Your task to perform on an android device: Go to Google maps Image 0: 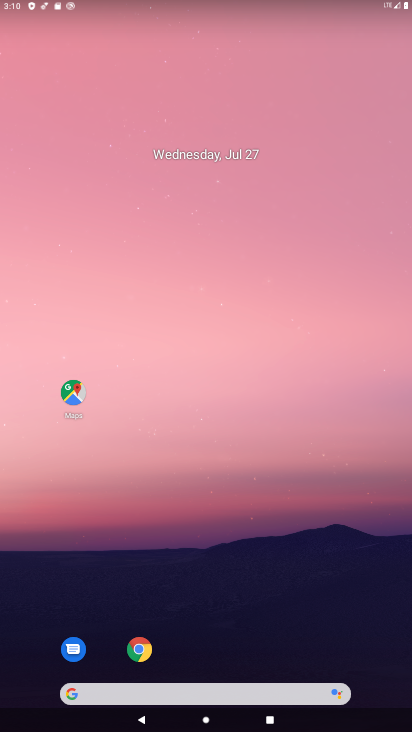
Step 0: press home button
Your task to perform on an android device: Go to Google maps Image 1: 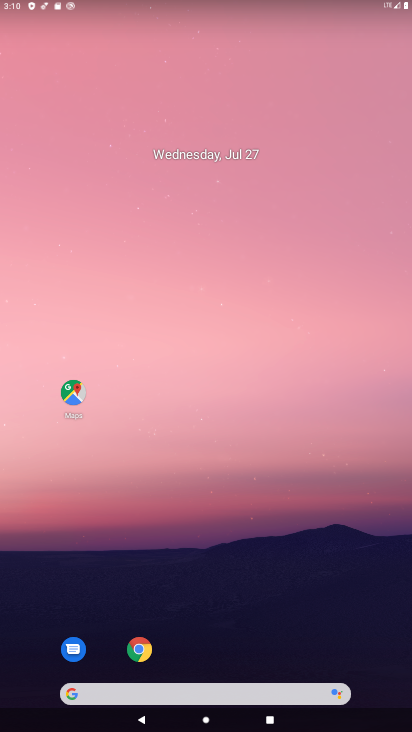
Step 1: drag from (304, 589) to (331, 149)
Your task to perform on an android device: Go to Google maps Image 2: 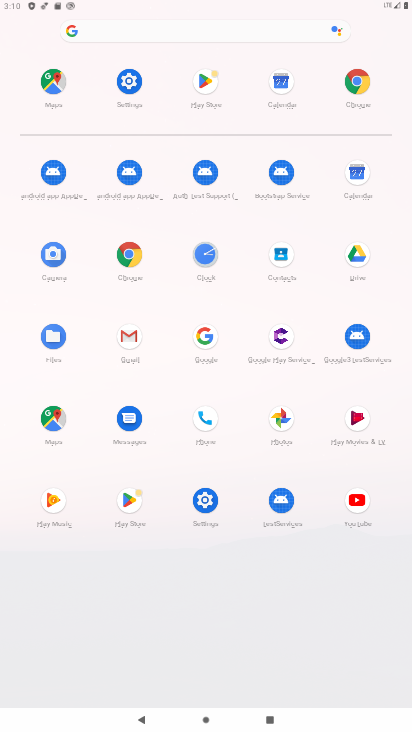
Step 2: click (47, 81)
Your task to perform on an android device: Go to Google maps Image 3: 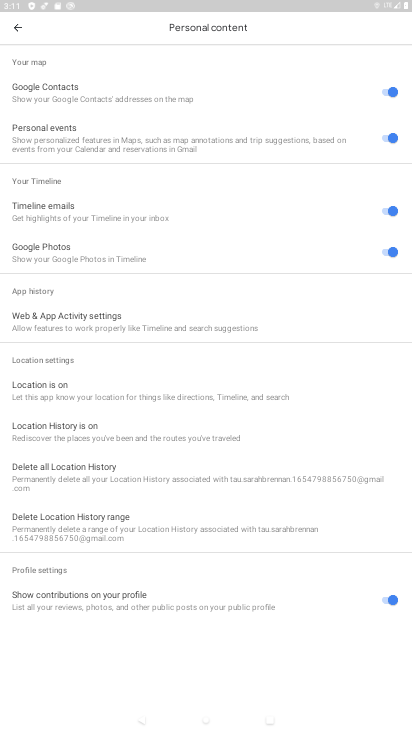
Step 3: task complete